Your task to perform on an android device: turn off location Image 0: 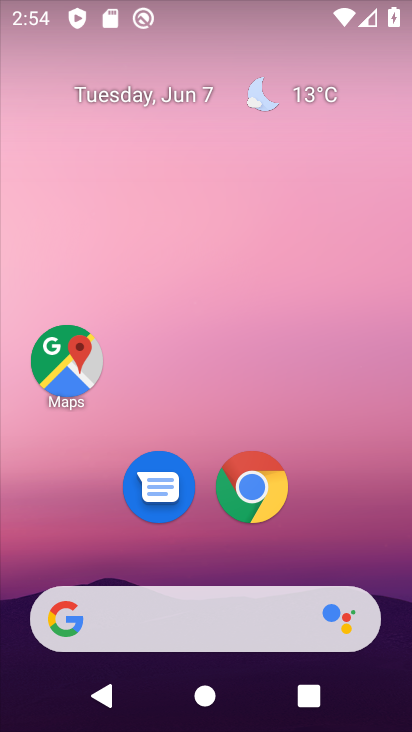
Step 0: drag from (237, 666) to (199, 1)
Your task to perform on an android device: turn off location Image 1: 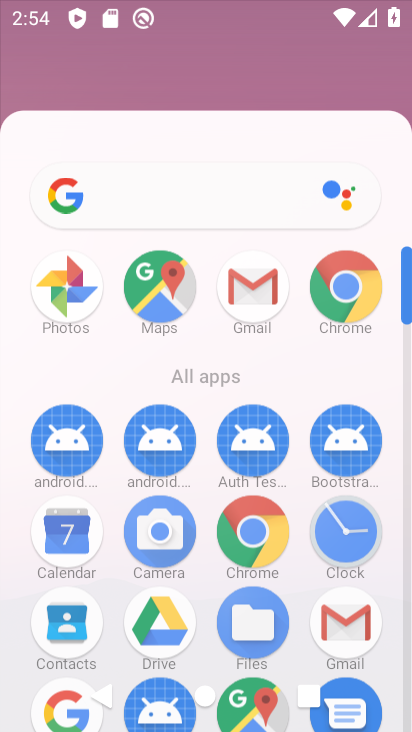
Step 1: drag from (201, 411) to (153, 103)
Your task to perform on an android device: turn off location Image 2: 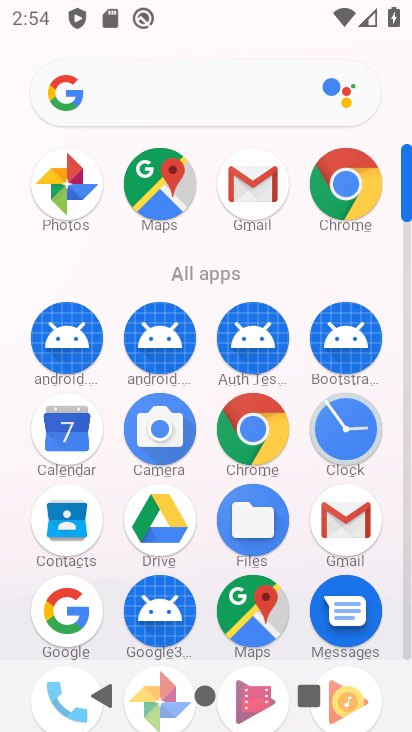
Step 2: drag from (214, 506) to (193, 172)
Your task to perform on an android device: turn off location Image 3: 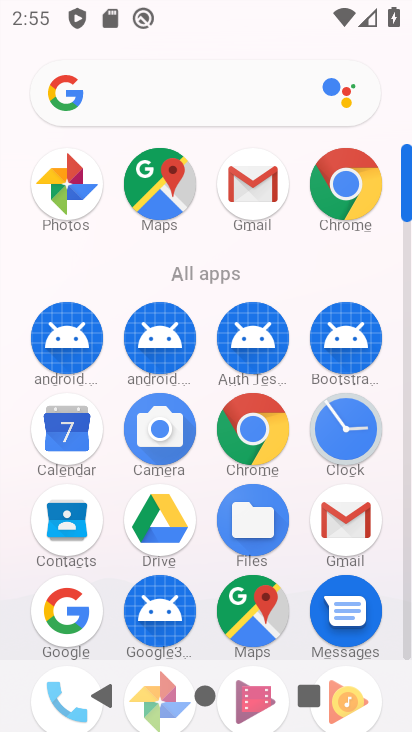
Step 3: drag from (267, 490) to (202, 188)
Your task to perform on an android device: turn off location Image 4: 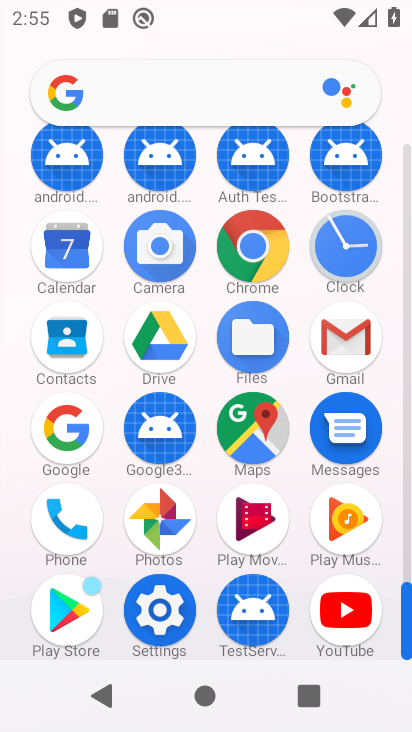
Step 4: drag from (247, 525) to (206, 199)
Your task to perform on an android device: turn off location Image 5: 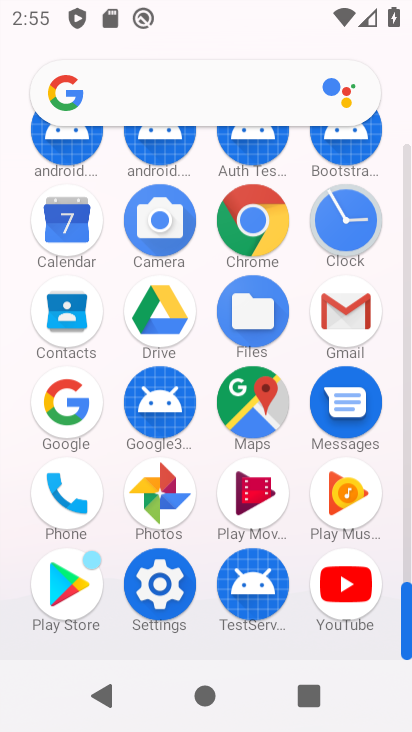
Step 5: drag from (221, 494) to (198, 333)
Your task to perform on an android device: turn off location Image 6: 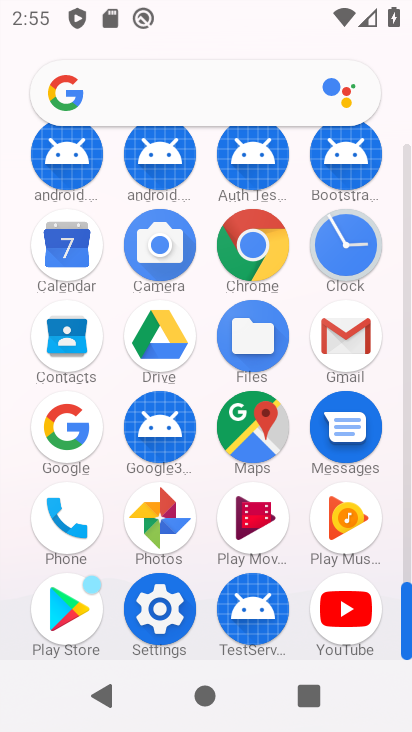
Step 6: click (170, 624)
Your task to perform on an android device: turn off location Image 7: 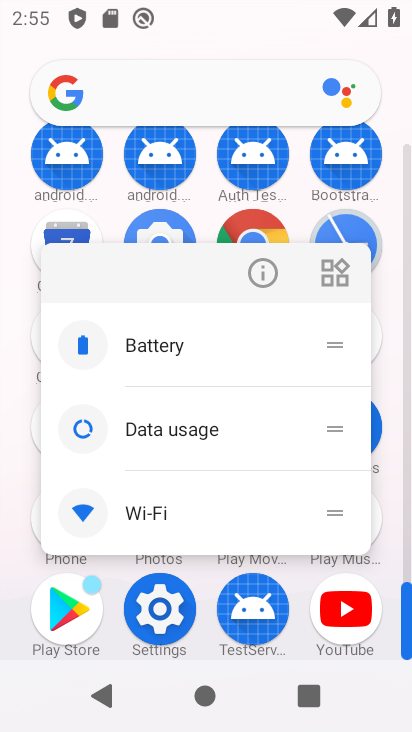
Step 7: click (160, 612)
Your task to perform on an android device: turn off location Image 8: 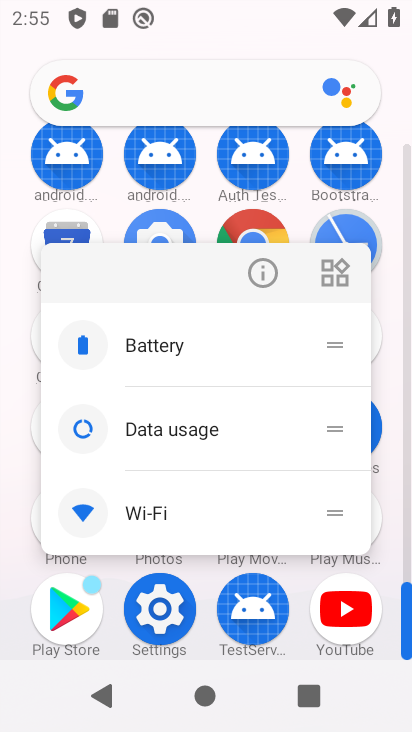
Step 8: click (160, 612)
Your task to perform on an android device: turn off location Image 9: 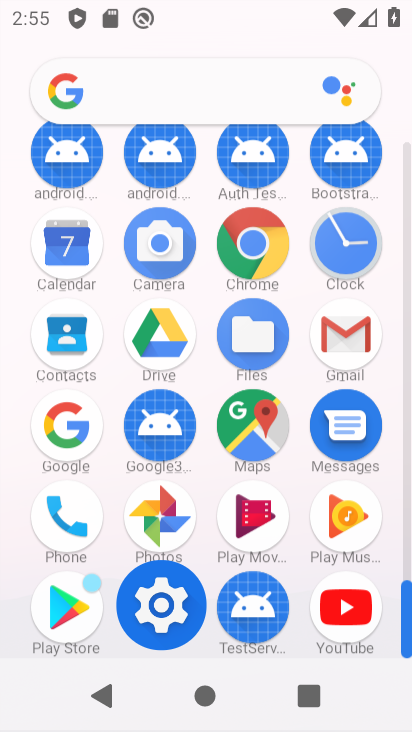
Step 9: click (160, 612)
Your task to perform on an android device: turn off location Image 10: 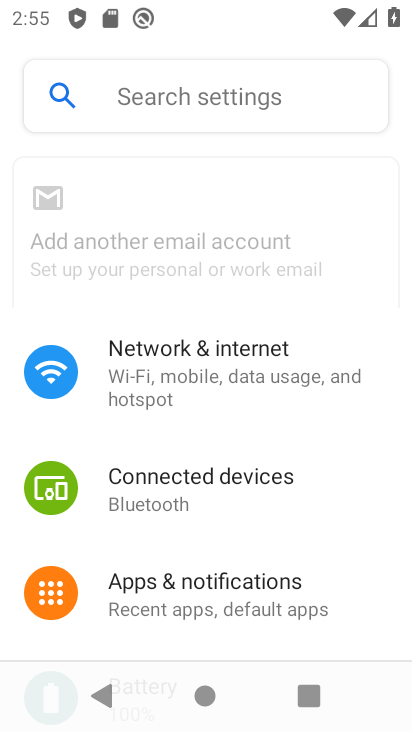
Step 10: drag from (167, 482) to (136, 146)
Your task to perform on an android device: turn off location Image 11: 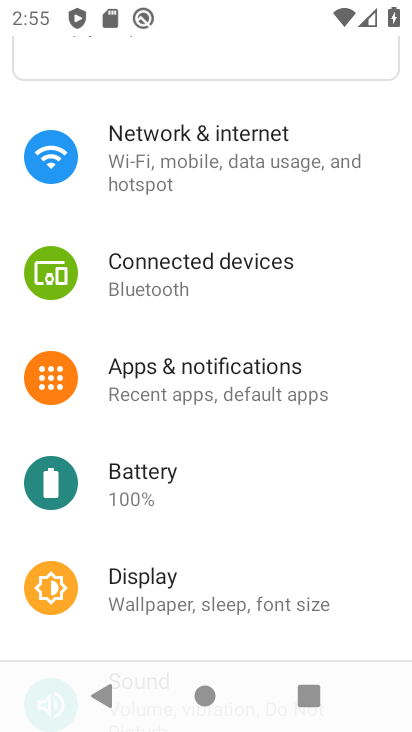
Step 11: drag from (186, 489) to (99, 154)
Your task to perform on an android device: turn off location Image 12: 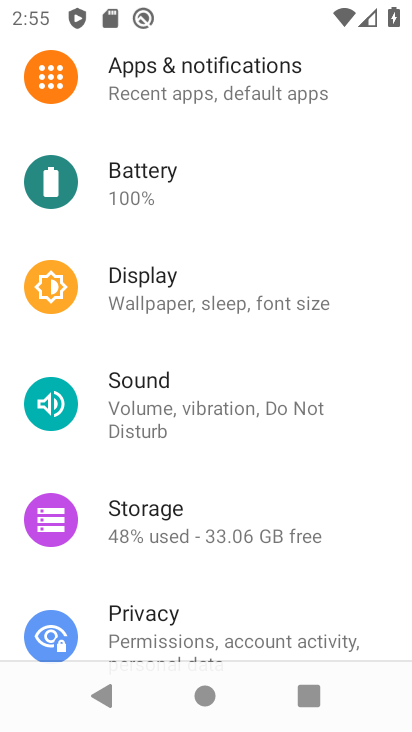
Step 12: drag from (206, 442) to (166, 185)
Your task to perform on an android device: turn off location Image 13: 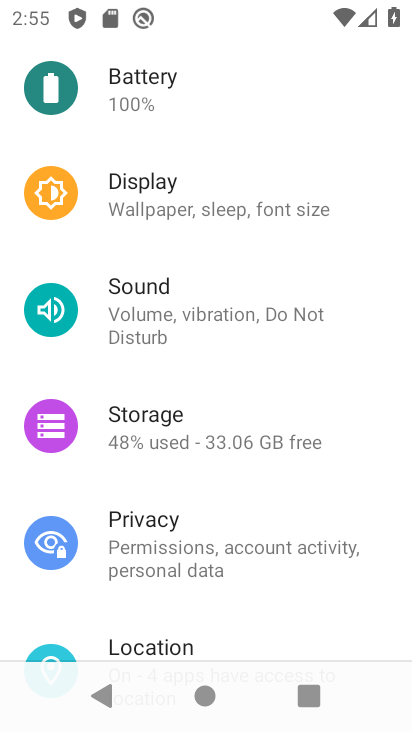
Step 13: drag from (140, 458) to (122, 248)
Your task to perform on an android device: turn off location Image 14: 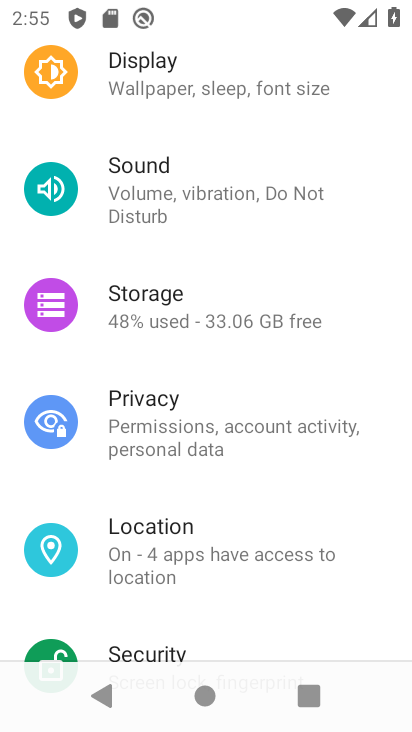
Step 14: drag from (235, 464) to (197, 198)
Your task to perform on an android device: turn off location Image 15: 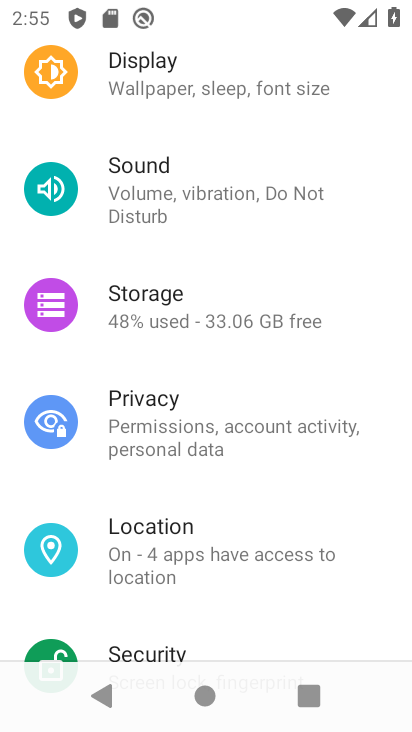
Step 15: drag from (148, 420) to (131, 250)
Your task to perform on an android device: turn off location Image 16: 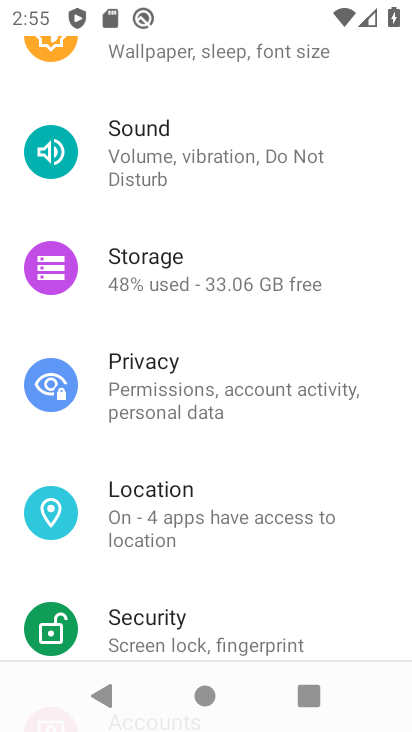
Step 16: click (148, 513)
Your task to perform on an android device: turn off location Image 17: 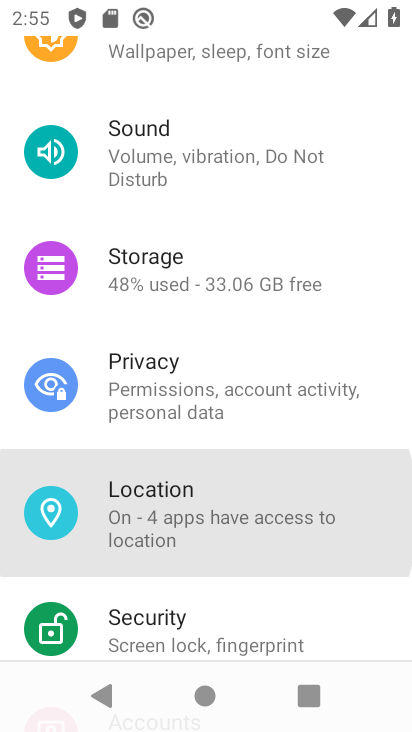
Step 17: click (148, 513)
Your task to perform on an android device: turn off location Image 18: 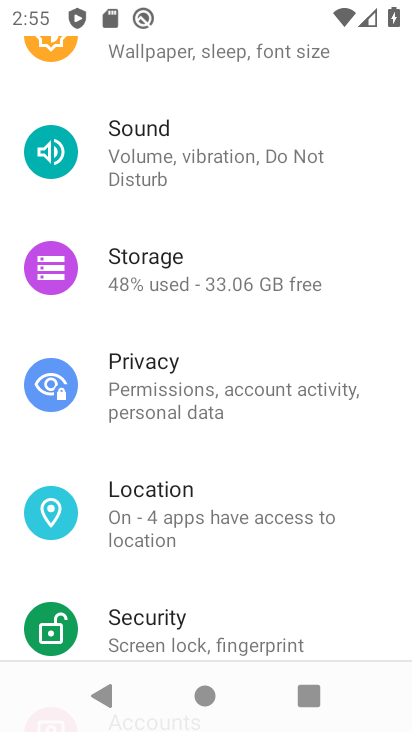
Step 18: click (148, 513)
Your task to perform on an android device: turn off location Image 19: 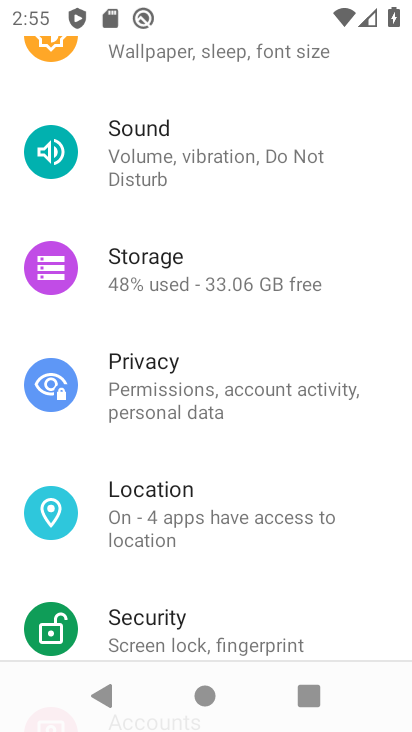
Step 19: click (146, 512)
Your task to perform on an android device: turn off location Image 20: 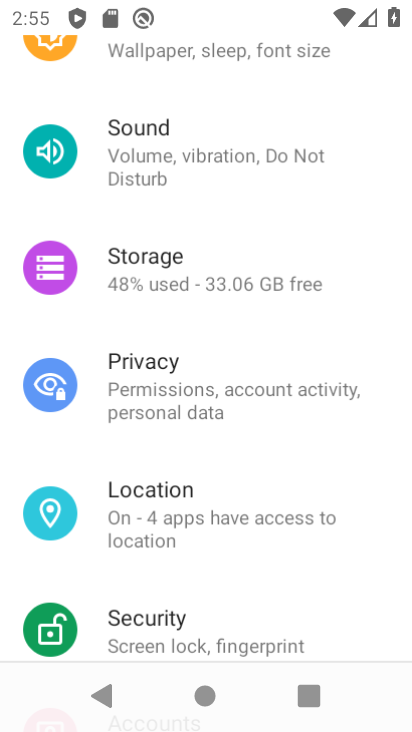
Step 20: click (146, 512)
Your task to perform on an android device: turn off location Image 21: 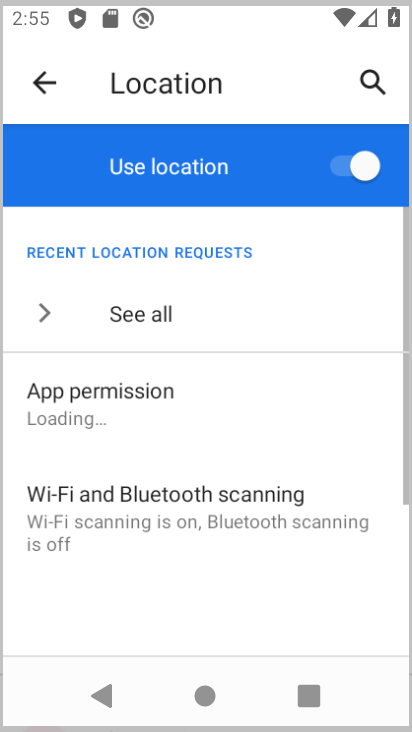
Step 21: click (146, 512)
Your task to perform on an android device: turn off location Image 22: 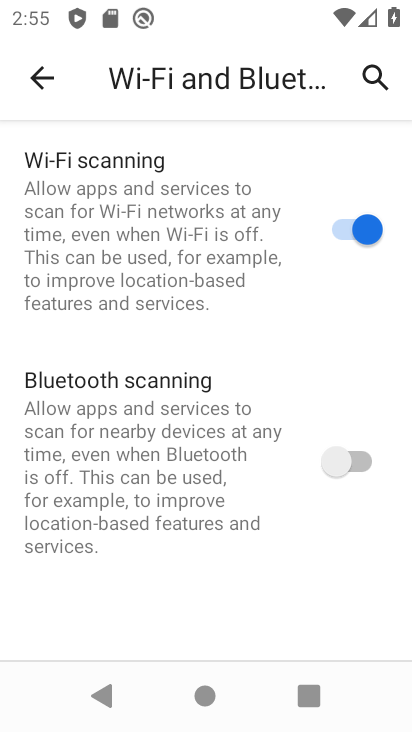
Step 22: task complete